Your task to perform on an android device: turn off improve location accuracy Image 0: 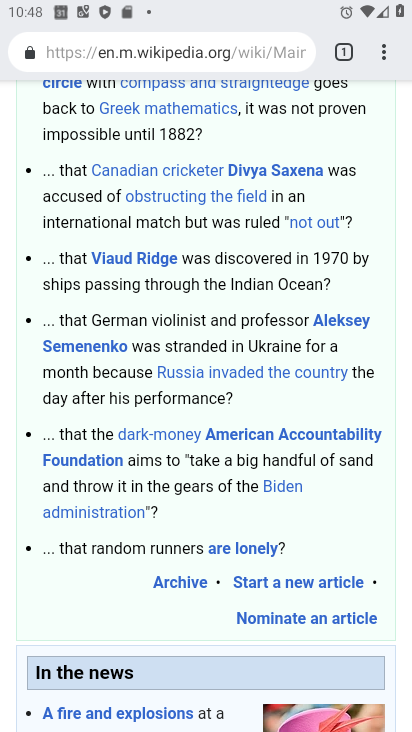
Step 0: press home button
Your task to perform on an android device: turn off improve location accuracy Image 1: 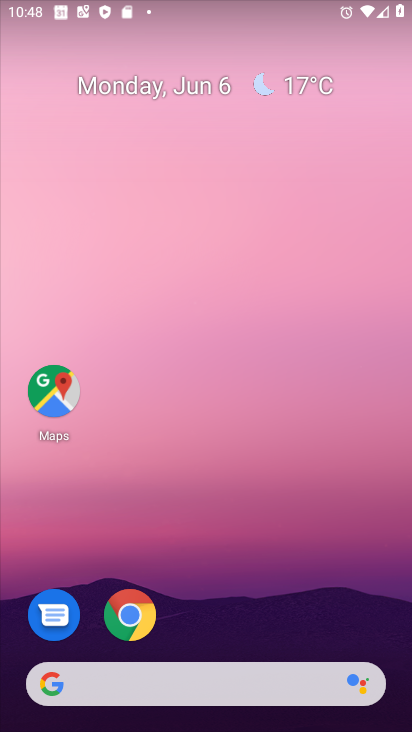
Step 1: drag from (212, 619) to (195, 68)
Your task to perform on an android device: turn off improve location accuracy Image 2: 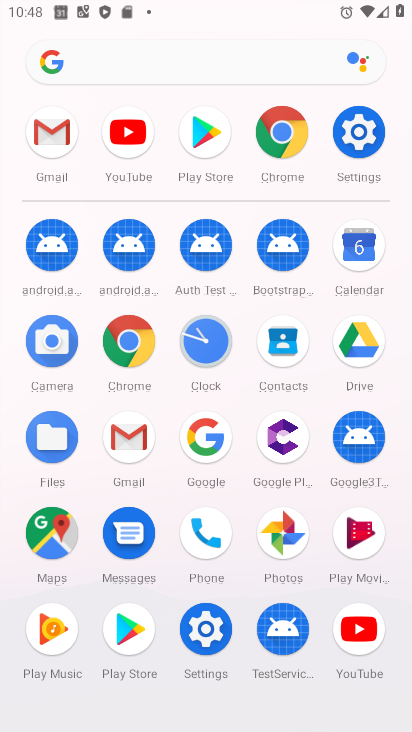
Step 2: click (356, 125)
Your task to perform on an android device: turn off improve location accuracy Image 3: 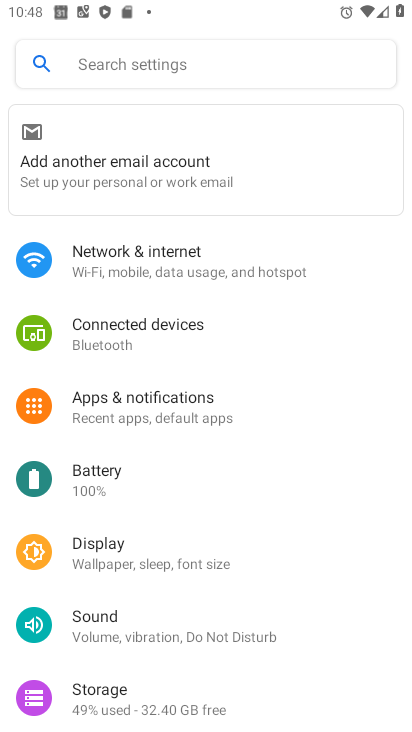
Step 3: drag from (173, 698) to (186, 199)
Your task to perform on an android device: turn off improve location accuracy Image 4: 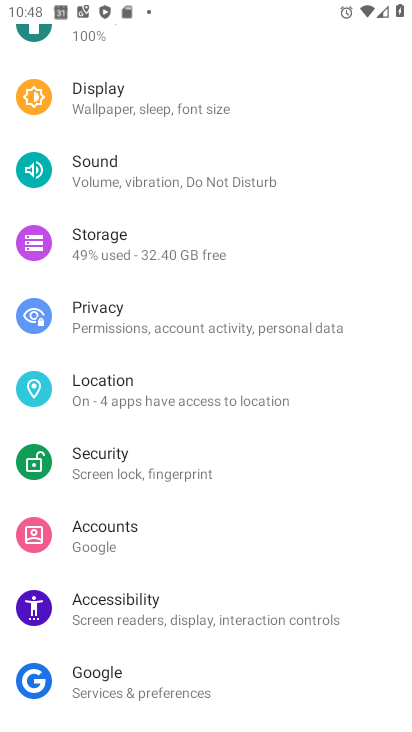
Step 4: click (144, 379)
Your task to perform on an android device: turn off improve location accuracy Image 5: 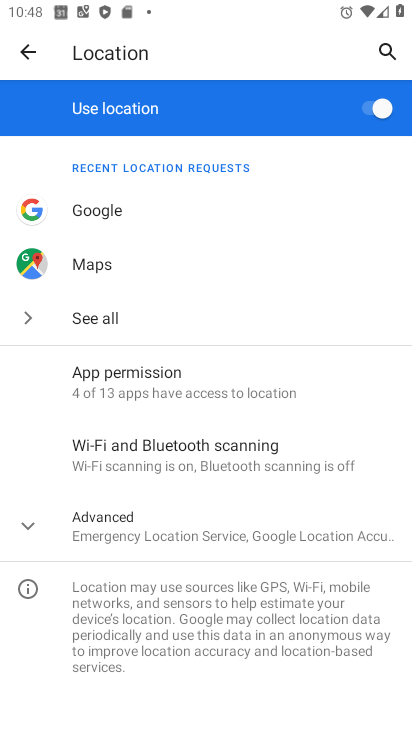
Step 5: click (31, 516)
Your task to perform on an android device: turn off improve location accuracy Image 6: 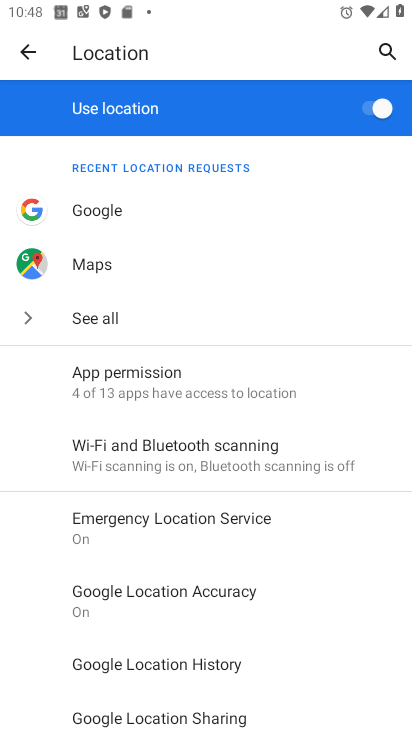
Step 6: click (122, 600)
Your task to perform on an android device: turn off improve location accuracy Image 7: 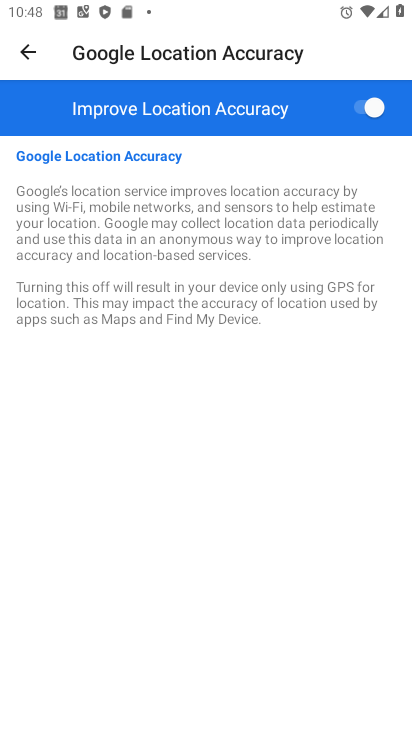
Step 7: click (355, 107)
Your task to perform on an android device: turn off improve location accuracy Image 8: 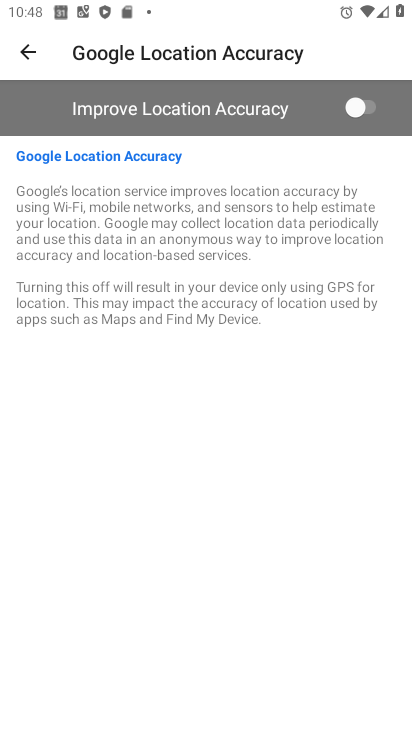
Step 8: task complete